Your task to perform on an android device: Open my contact list Image 0: 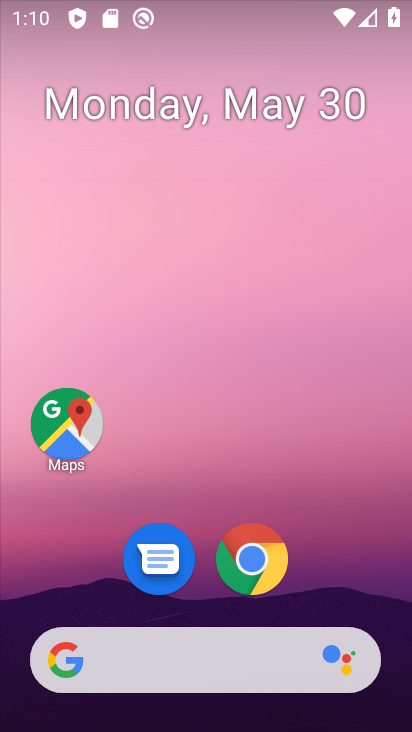
Step 0: drag from (347, 605) to (378, 0)
Your task to perform on an android device: Open my contact list Image 1: 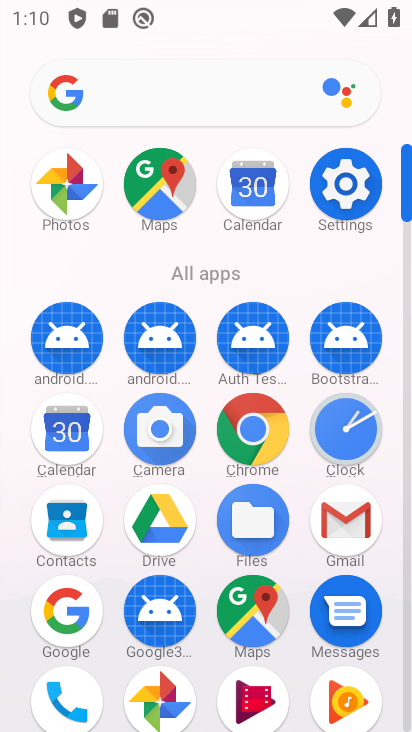
Step 1: click (67, 530)
Your task to perform on an android device: Open my contact list Image 2: 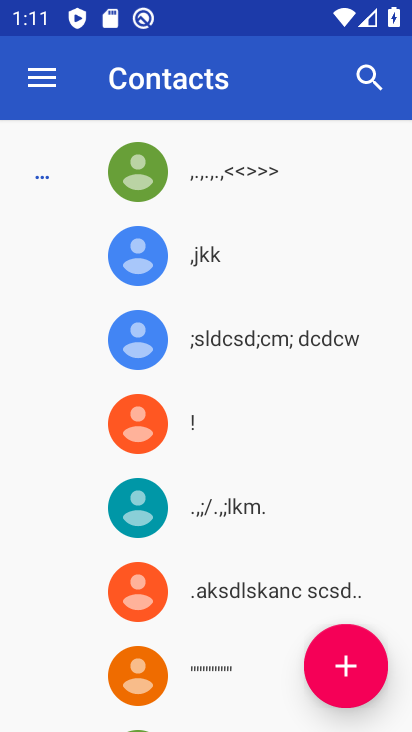
Step 2: task complete